Your task to perform on an android device: Show me productivity apps on the Play Store Image 0: 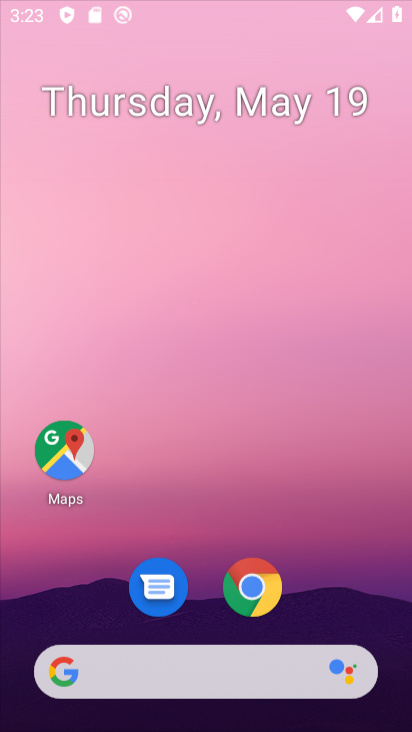
Step 0: drag from (370, 577) to (347, 268)
Your task to perform on an android device: Show me productivity apps on the Play Store Image 1: 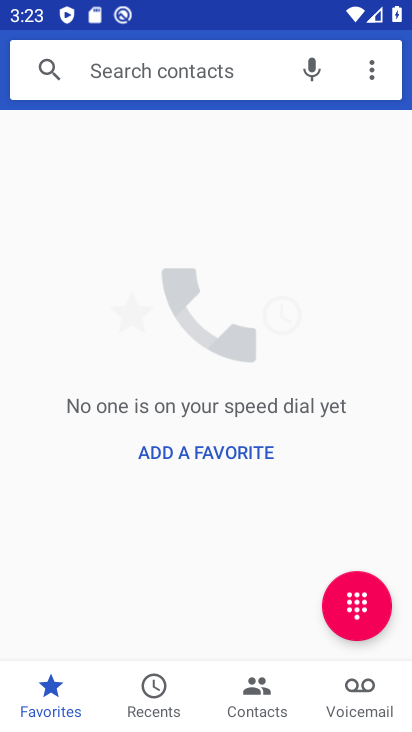
Step 1: press home button
Your task to perform on an android device: Show me productivity apps on the Play Store Image 2: 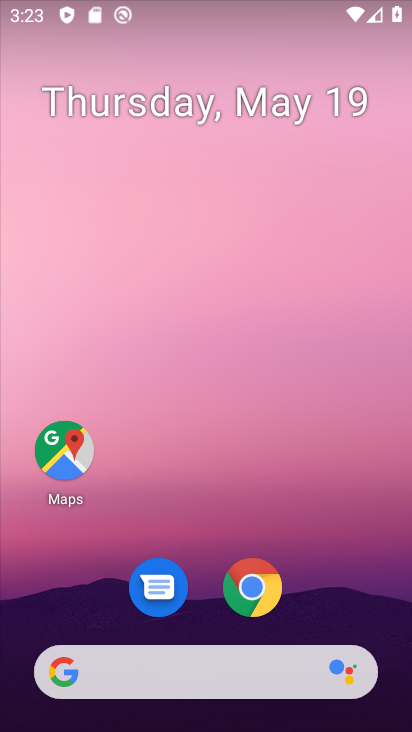
Step 2: drag from (352, 586) to (342, 268)
Your task to perform on an android device: Show me productivity apps on the Play Store Image 3: 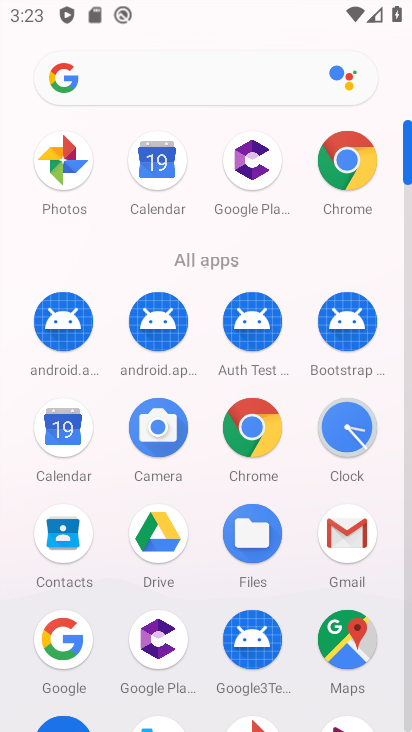
Step 3: drag from (203, 586) to (201, 436)
Your task to perform on an android device: Show me productivity apps on the Play Store Image 4: 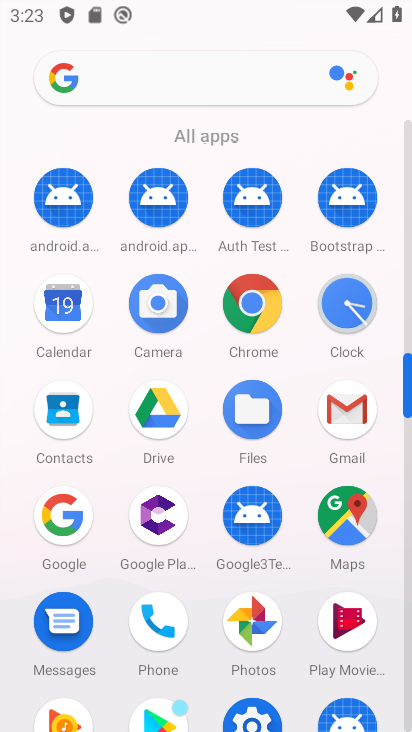
Step 4: drag from (200, 629) to (196, 508)
Your task to perform on an android device: Show me productivity apps on the Play Store Image 5: 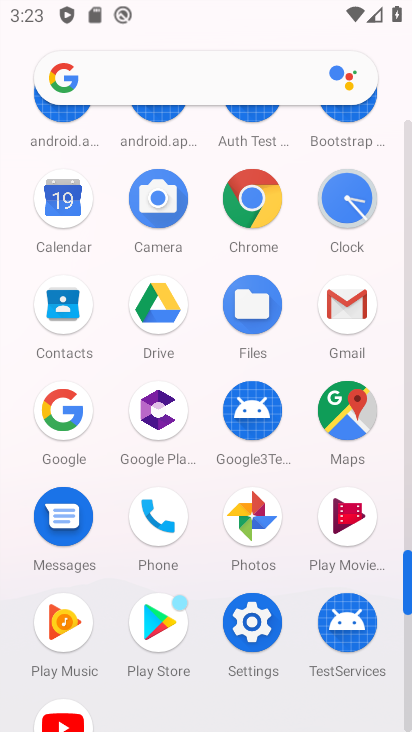
Step 5: drag from (202, 644) to (206, 535)
Your task to perform on an android device: Show me productivity apps on the Play Store Image 6: 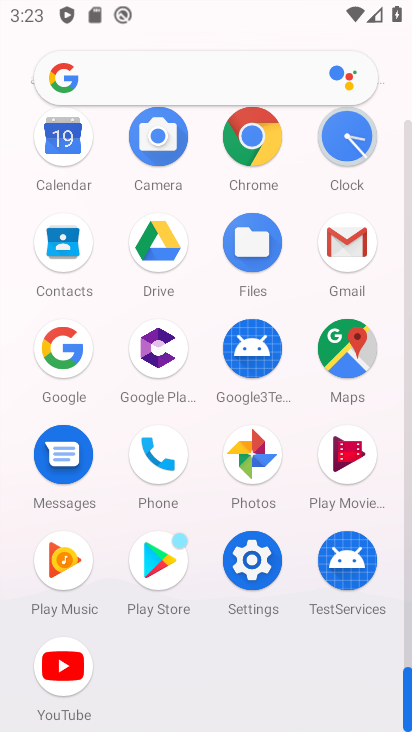
Step 6: click (154, 578)
Your task to perform on an android device: Show me productivity apps on the Play Store Image 7: 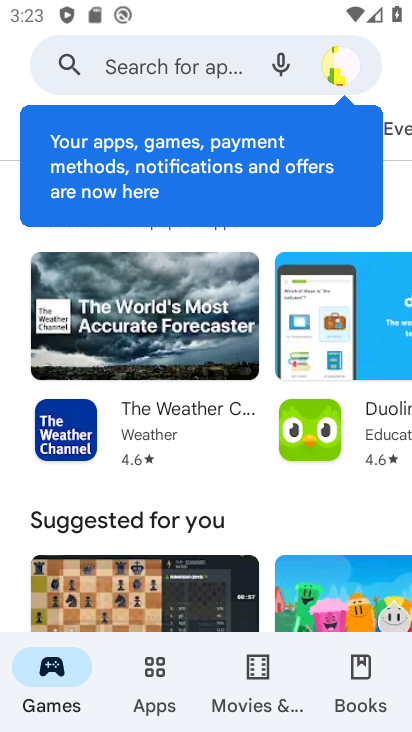
Step 7: click (151, 690)
Your task to perform on an android device: Show me productivity apps on the Play Store Image 8: 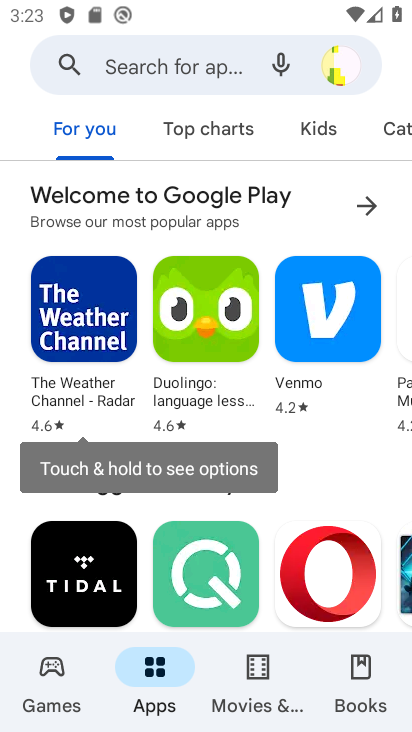
Step 8: task complete